Your task to perform on an android device: See recent photos Image 0: 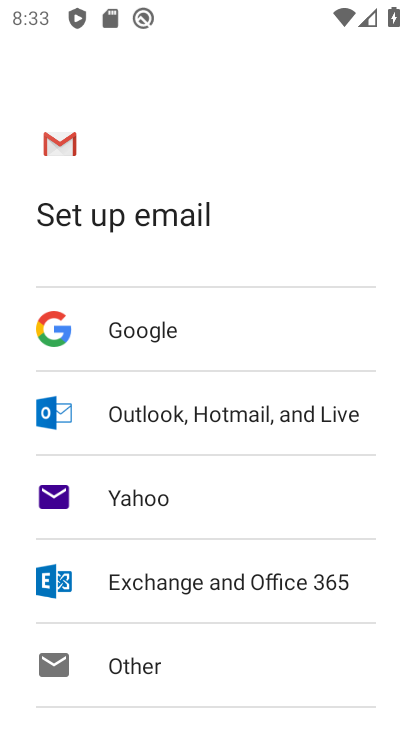
Step 0: press home button
Your task to perform on an android device: See recent photos Image 1: 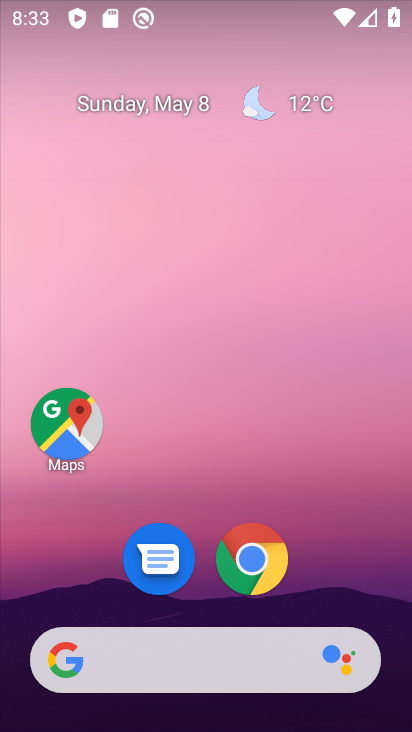
Step 1: drag from (220, 627) to (295, 6)
Your task to perform on an android device: See recent photos Image 2: 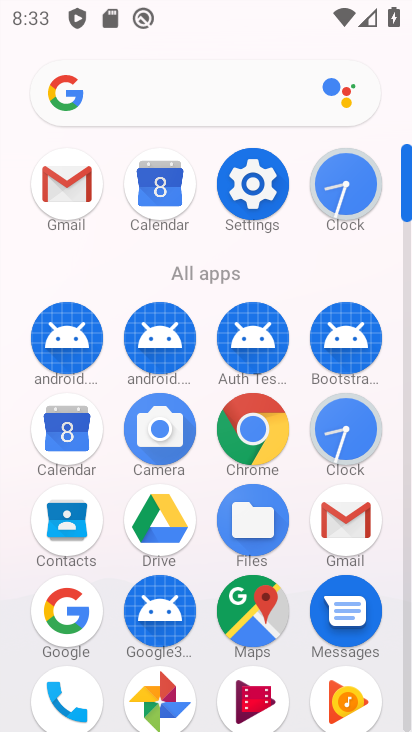
Step 2: click (142, 700)
Your task to perform on an android device: See recent photos Image 3: 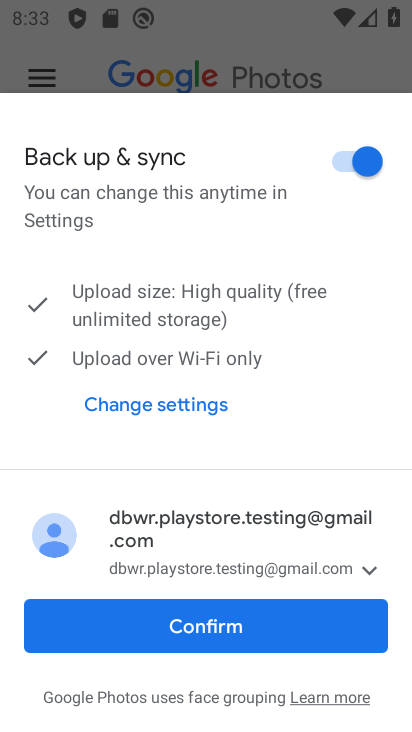
Step 3: click (218, 629)
Your task to perform on an android device: See recent photos Image 4: 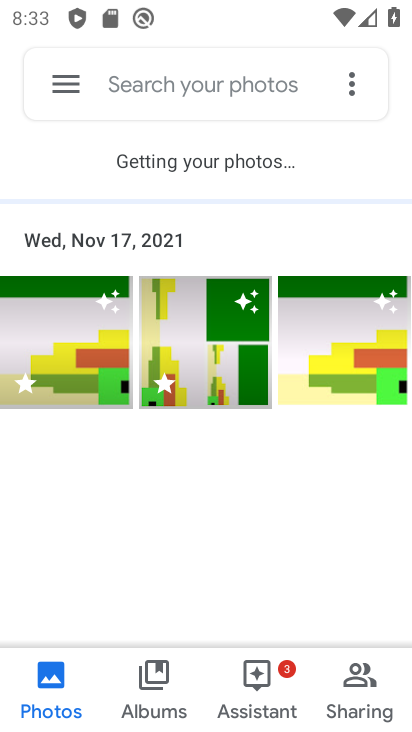
Step 4: task complete